Your task to perform on an android device: toggle notification dots Image 0: 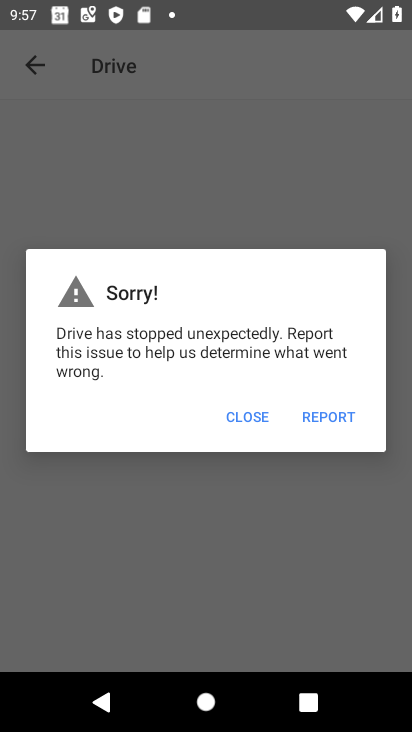
Step 0: drag from (366, 532) to (398, 2)
Your task to perform on an android device: toggle notification dots Image 1: 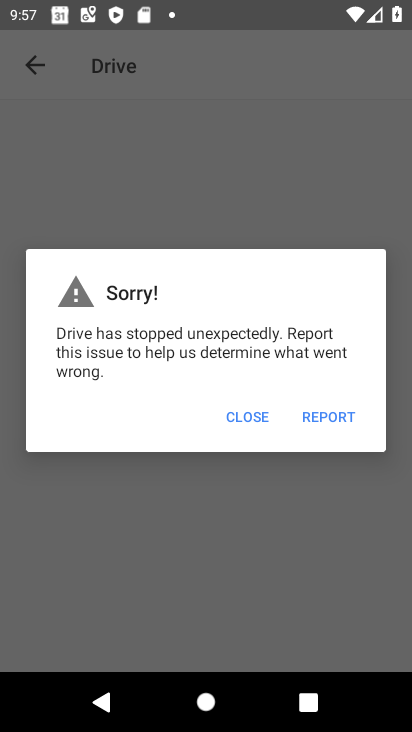
Step 1: press home button
Your task to perform on an android device: toggle notification dots Image 2: 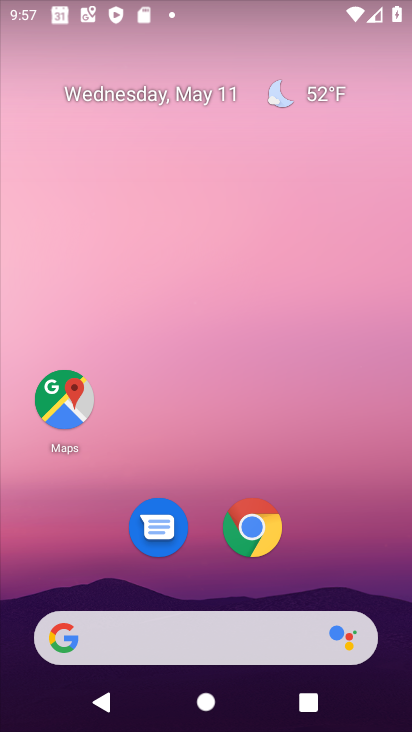
Step 2: drag from (333, 547) to (293, 1)
Your task to perform on an android device: toggle notification dots Image 3: 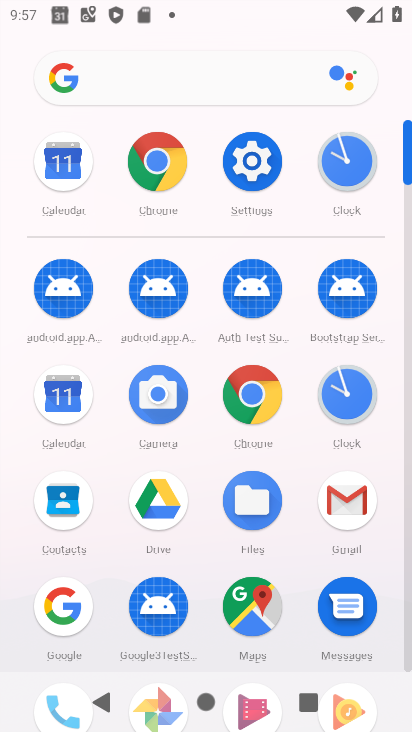
Step 3: click (269, 147)
Your task to perform on an android device: toggle notification dots Image 4: 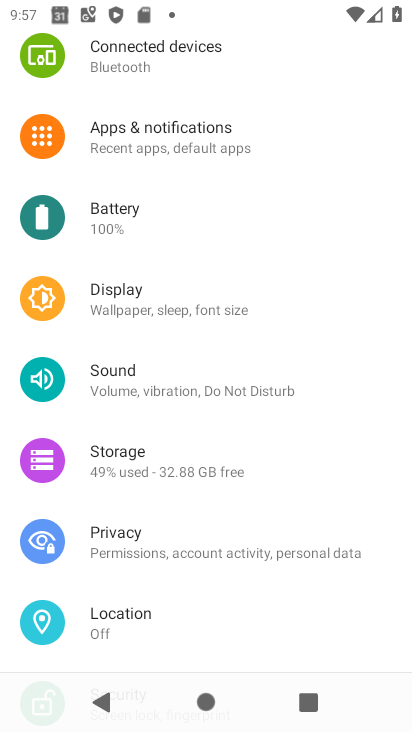
Step 4: click (194, 121)
Your task to perform on an android device: toggle notification dots Image 5: 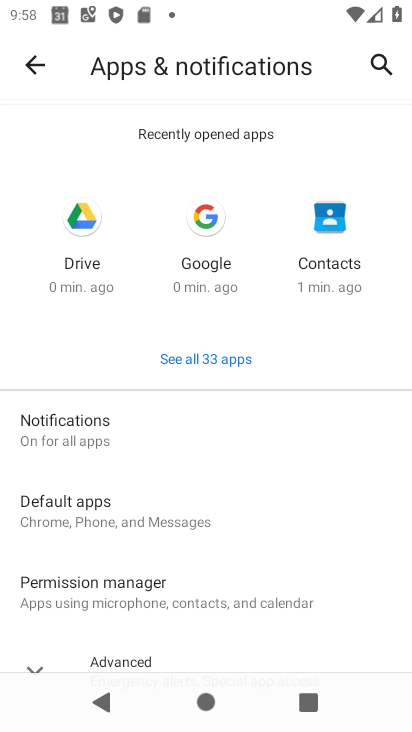
Step 5: drag from (163, 577) to (211, 147)
Your task to perform on an android device: toggle notification dots Image 6: 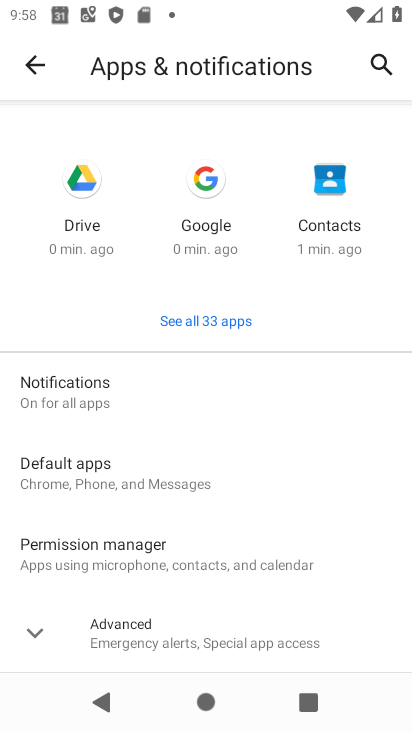
Step 6: drag from (268, 605) to (326, 187)
Your task to perform on an android device: toggle notification dots Image 7: 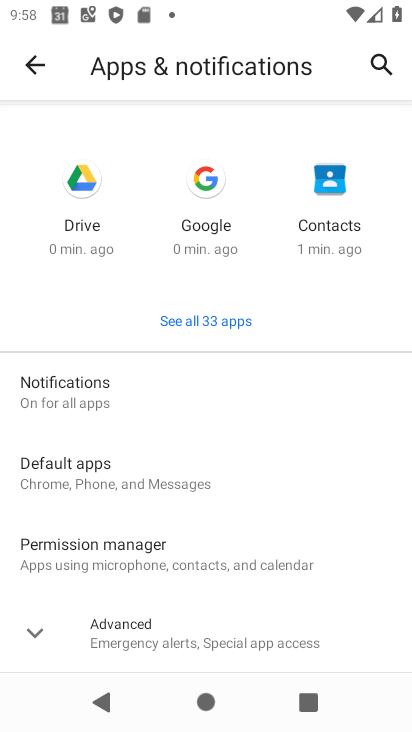
Step 7: click (211, 634)
Your task to perform on an android device: toggle notification dots Image 8: 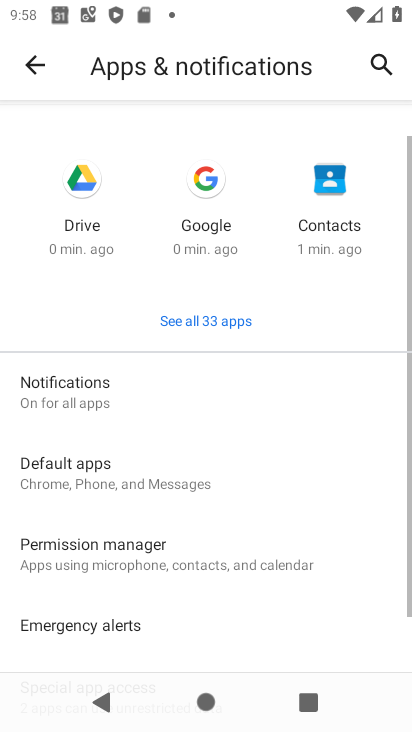
Step 8: drag from (222, 632) to (280, 229)
Your task to perform on an android device: toggle notification dots Image 9: 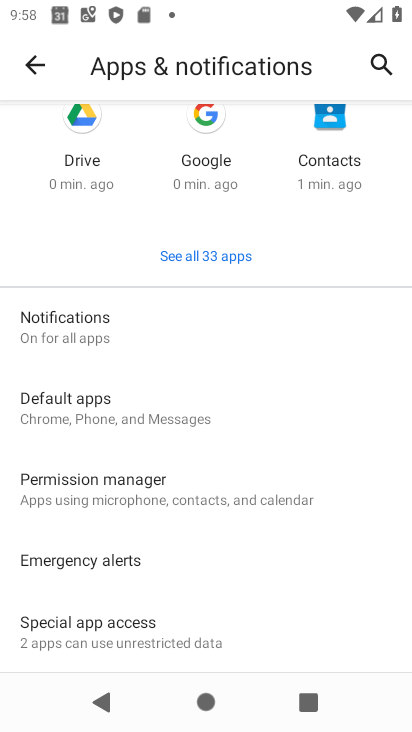
Step 9: click (77, 336)
Your task to perform on an android device: toggle notification dots Image 10: 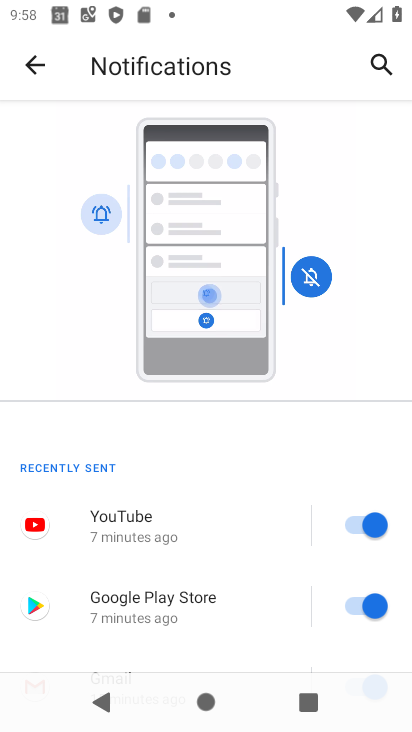
Step 10: drag from (251, 616) to (178, 201)
Your task to perform on an android device: toggle notification dots Image 11: 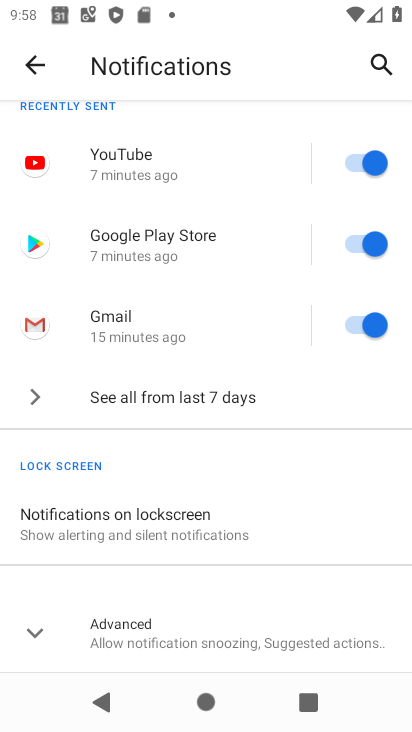
Step 11: drag from (225, 616) to (258, 330)
Your task to perform on an android device: toggle notification dots Image 12: 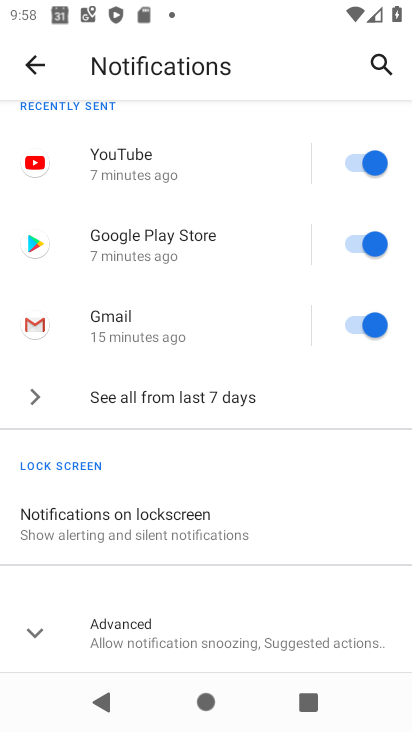
Step 12: drag from (186, 591) to (207, 333)
Your task to perform on an android device: toggle notification dots Image 13: 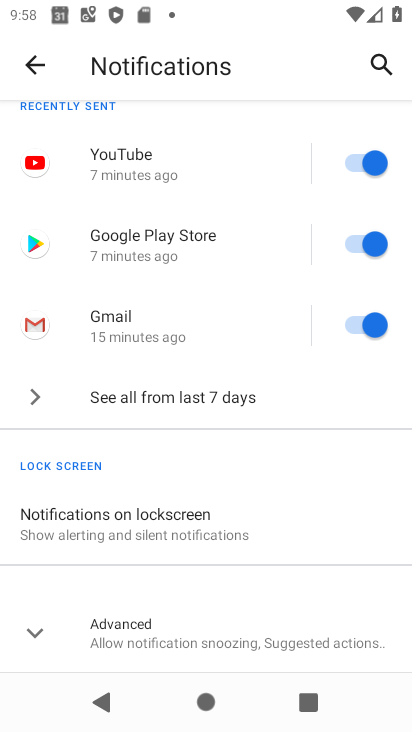
Step 13: click (127, 632)
Your task to perform on an android device: toggle notification dots Image 14: 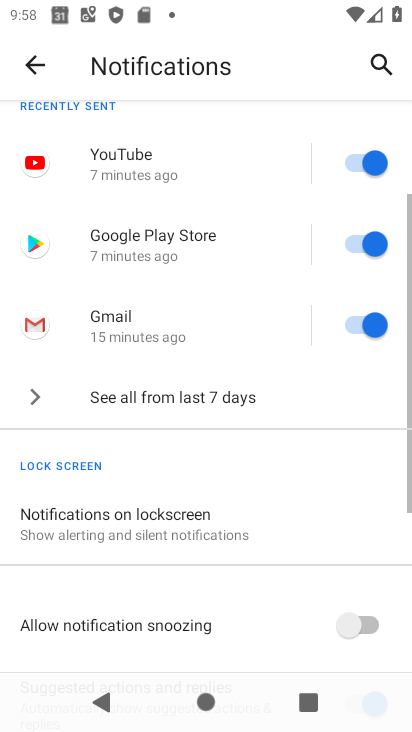
Step 14: drag from (129, 608) to (129, 126)
Your task to perform on an android device: toggle notification dots Image 15: 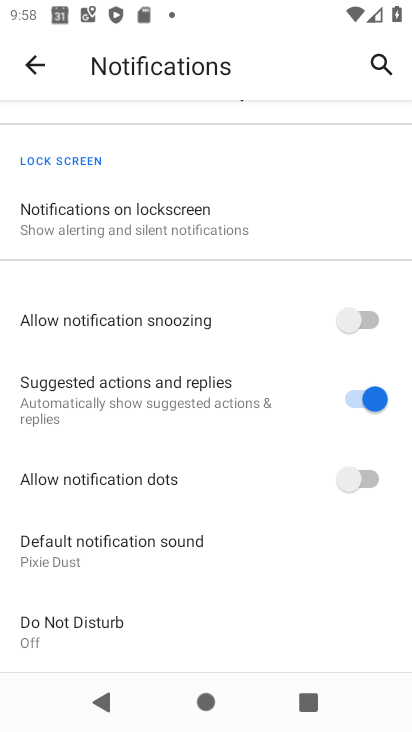
Step 15: click (354, 483)
Your task to perform on an android device: toggle notification dots Image 16: 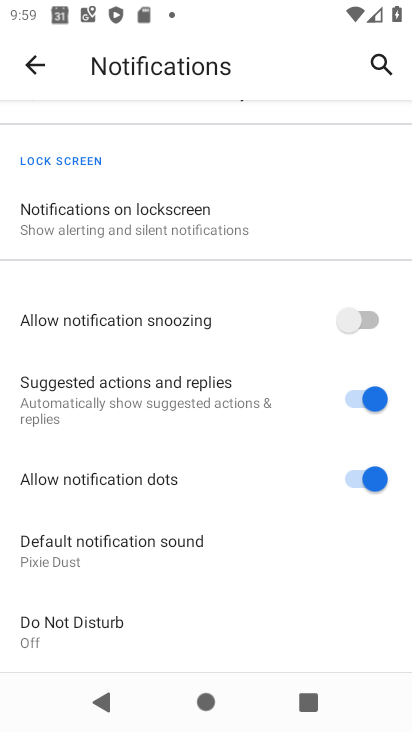
Step 16: task complete